Your task to perform on an android device: turn on javascript in the chrome app Image 0: 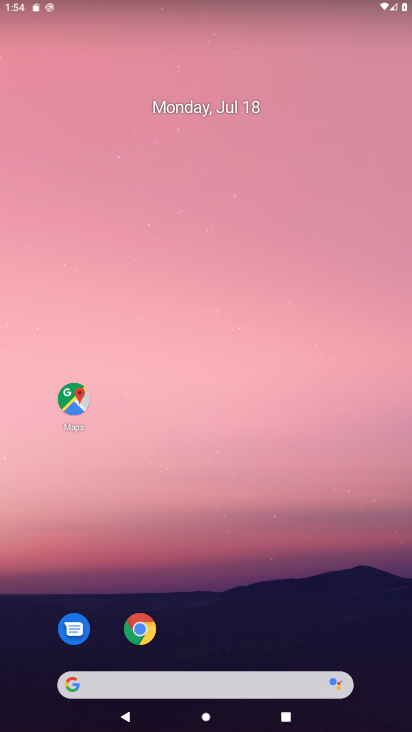
Step 0: click (137, 628)
Your task to perform on an android device: turn on javascript in the chrome app Image 1: 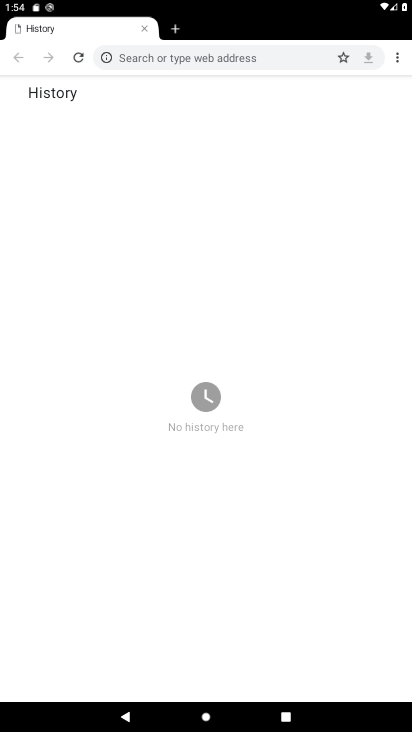
Step 1: click (399, 57)
Your task to perform on an android device: turn on javascript in the chrome app Image 2: 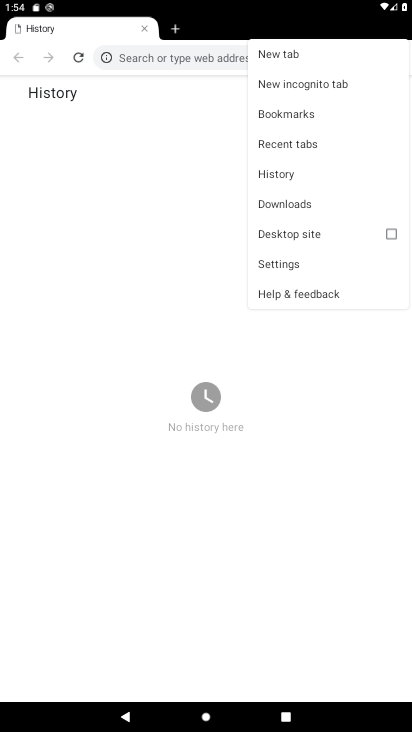
Step 2: click (276, 267)
Your task to perform on an android device: turn on javascript in the chrome app Image 3: 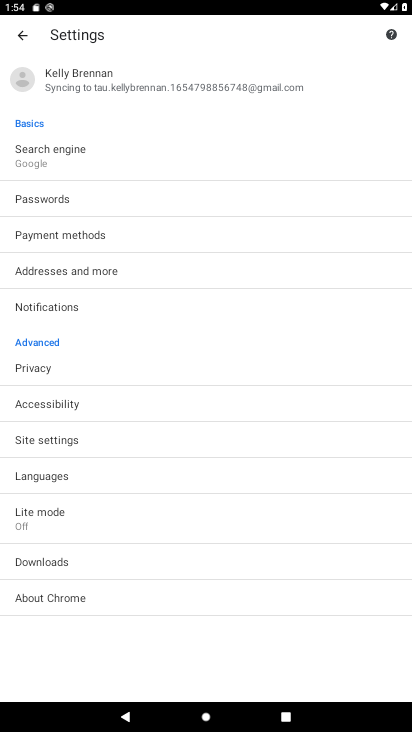
Step 3: click (84, 433)
Your task to perform on an android device: turn on javascript in the chrome app Image 4: 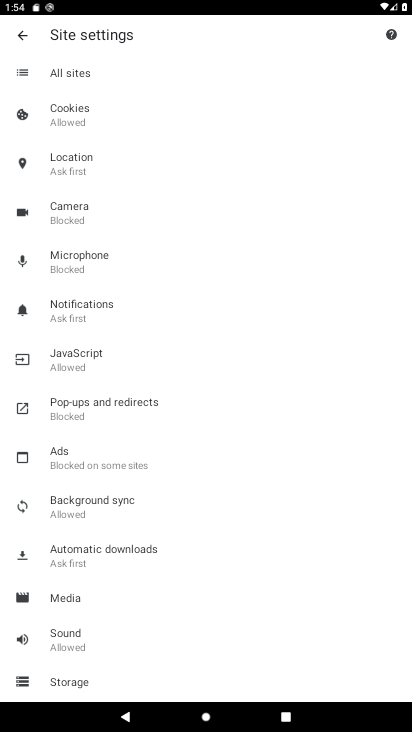
Step 4: click (82, 359)
Your task to perform on an android device: turn on javascript in the chrome app Image 5: 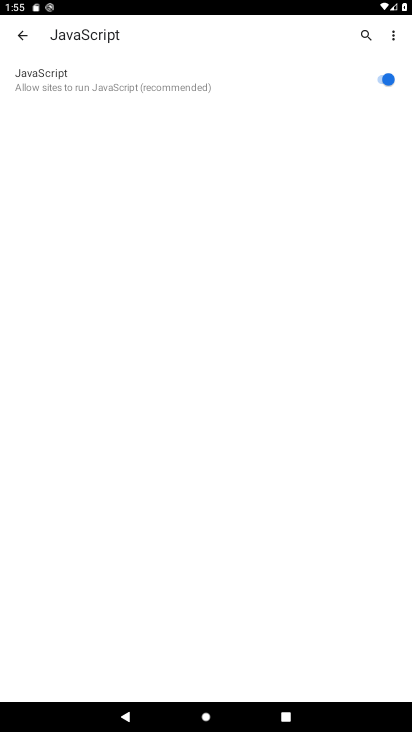
Step 5: task complete